Your task to perform on an android device: What's on my calendar today? Image 0: 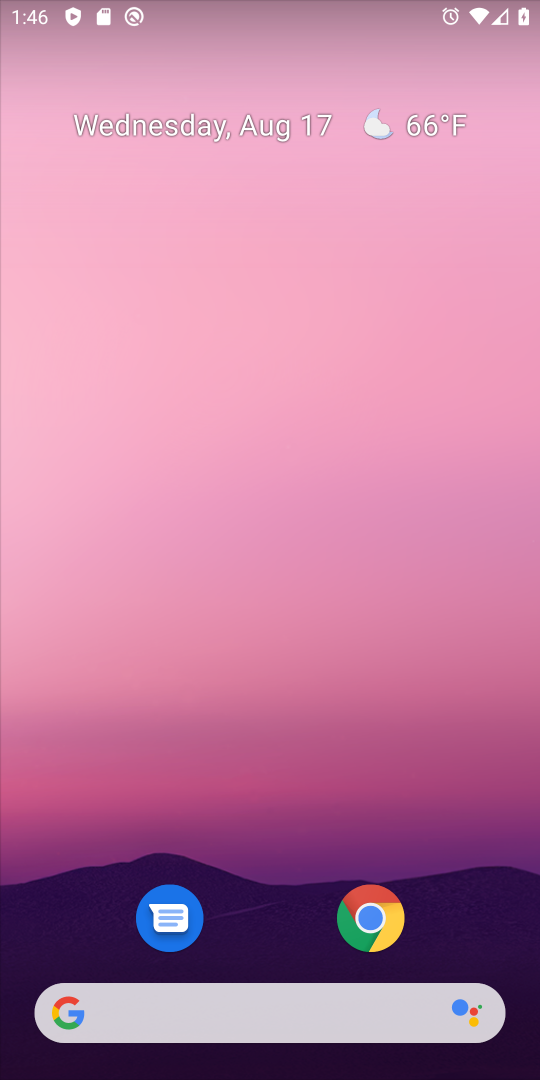
Step 0: drag from (271, 1015) to (169, 31)
Your task to perform on an android device: What's on my calendar today? Image 1: 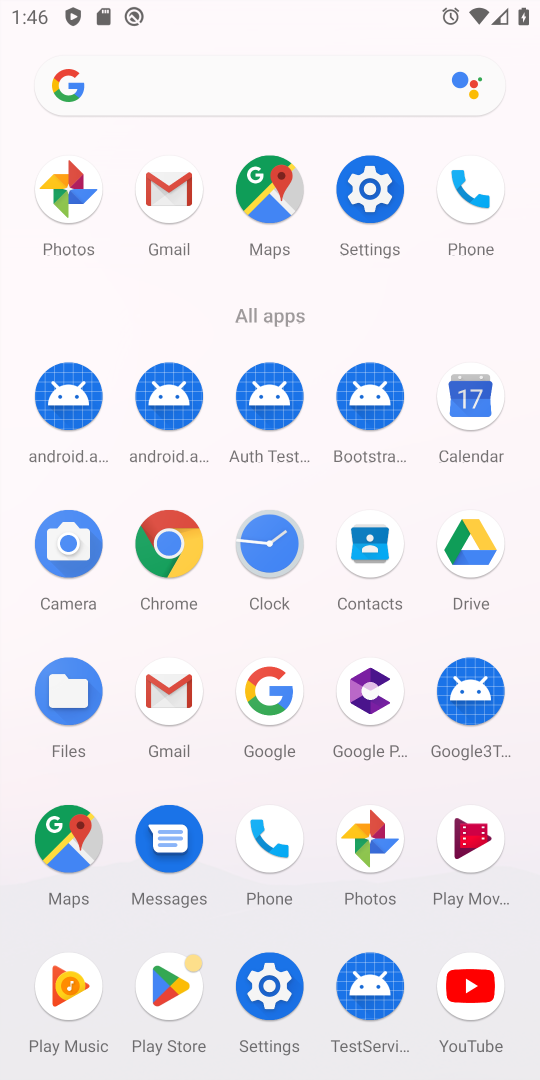
Step 1: click (461, 412)
Your task to perform on an android device: What's on my calendar today? Image 2: 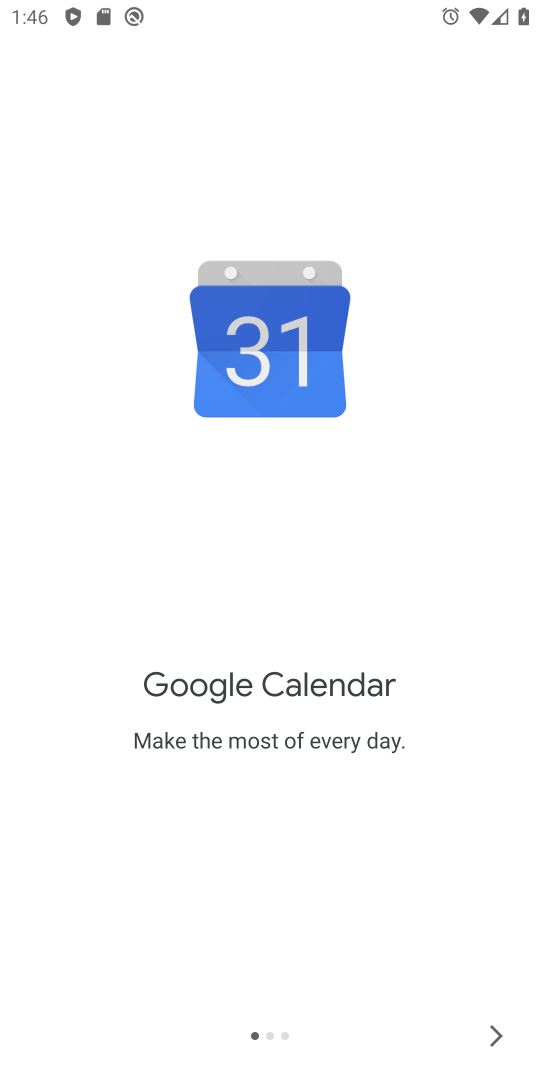
Step 2: click (492, 1018)
Your task to perform on an android device: What's on my calendar today? Image 3: 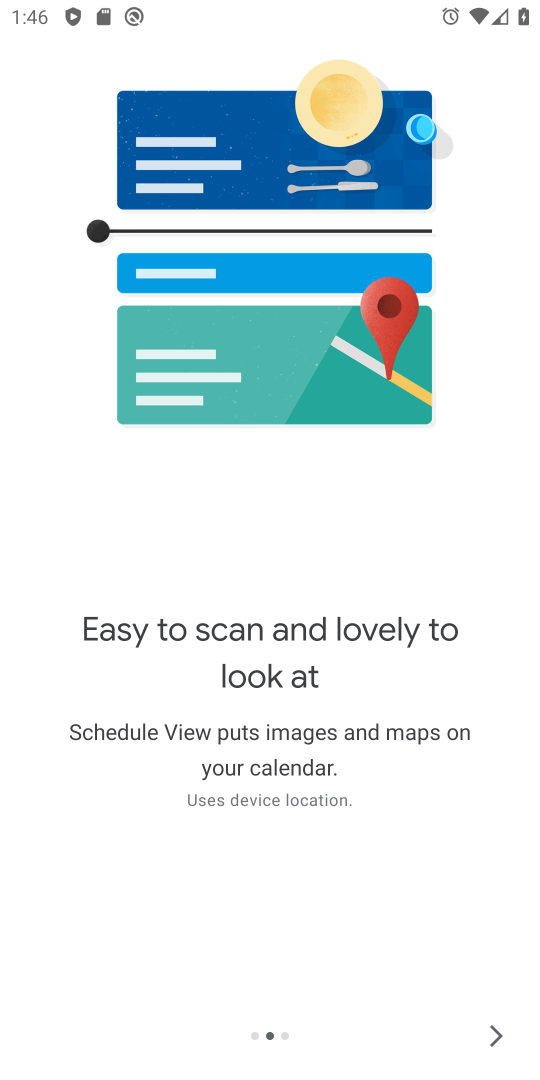
Step 3: click (492, 1018)
Your task to perform on an android device: What's on my calendar today? Image 4: 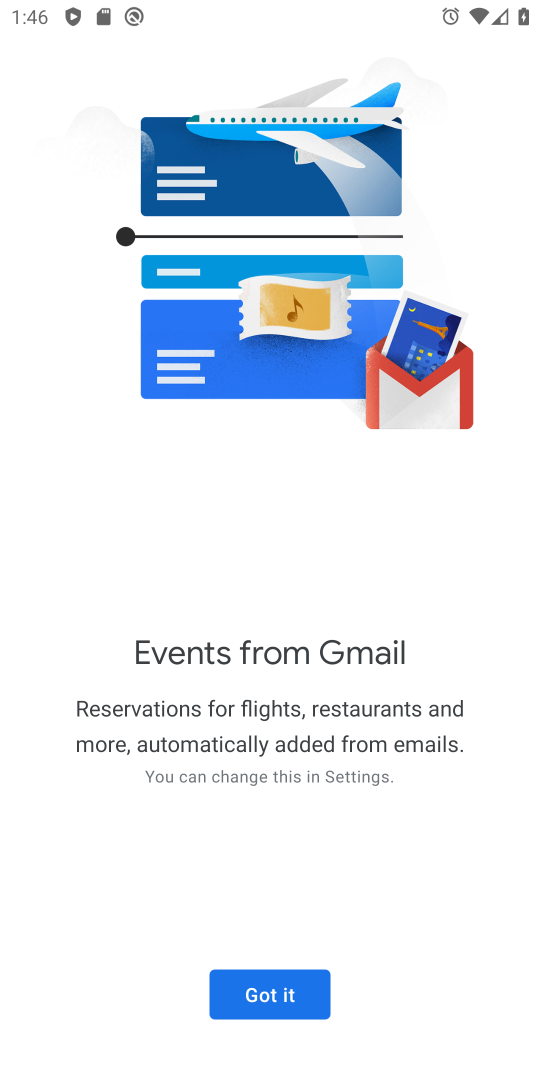
Step 4: click (289, 1001)
Your task to perform on an android device: What's on my calendar today? Image 5: 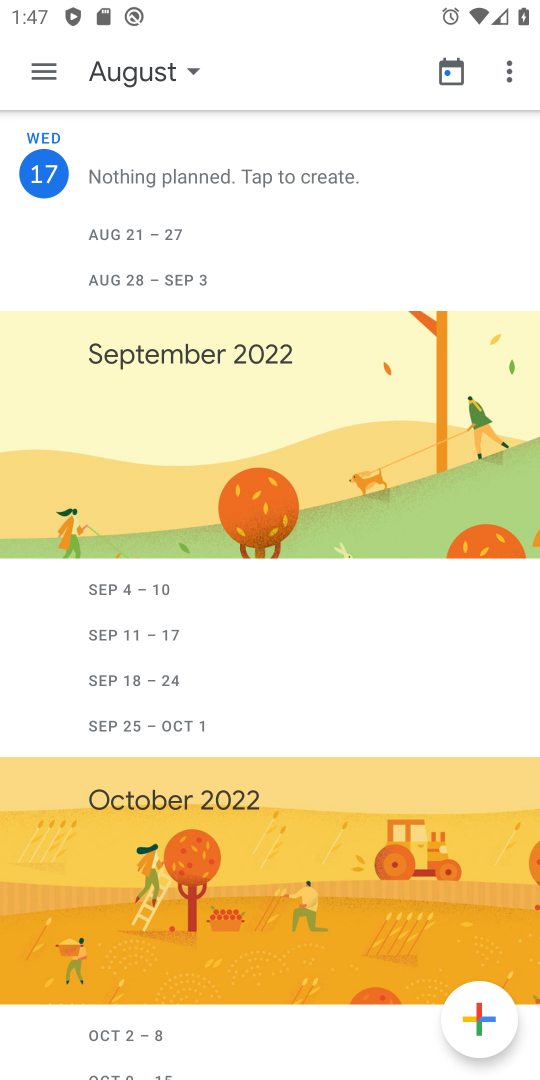
Step 5: task complete